Your task to perform on an android device: show emergency info Image 0: 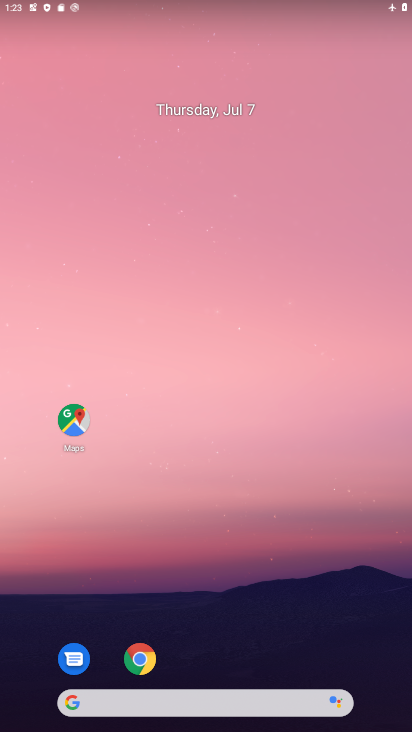
Step 0: press home button
Your task to perform on an android device: show emergency info Image 1: 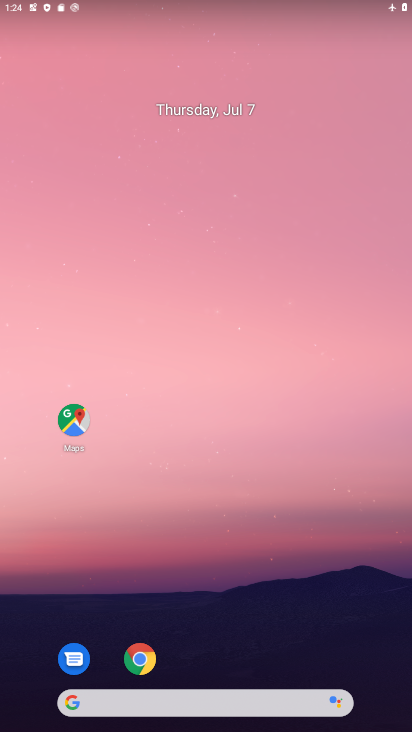
Step 1: drag from (214, 675) to (220, 66)
Your task to perform on an android device: show emergency info Image 2: 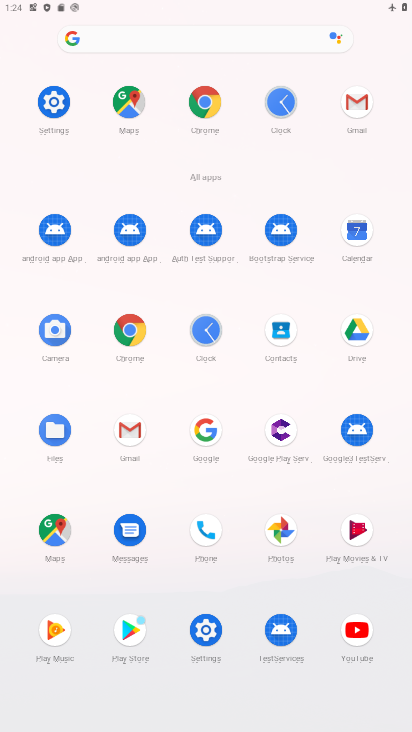
Step 2: click (50, 96)
Your task to perform on an android device: show emergency info Image 3: 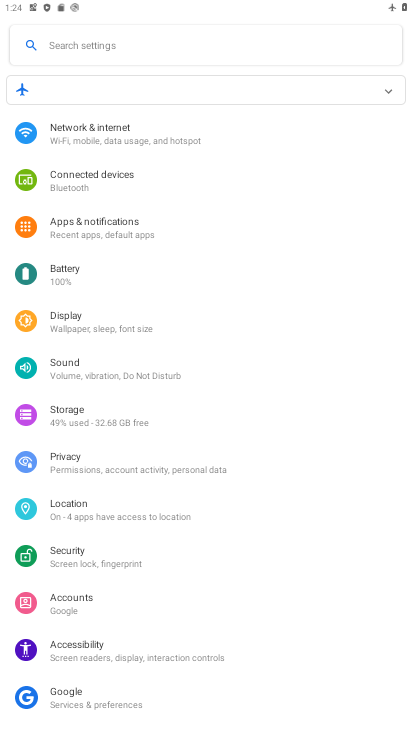
Step 3: drag from (181, 643) to (177, 176)
Your task to perform on an android device: show emergency info Image 4: 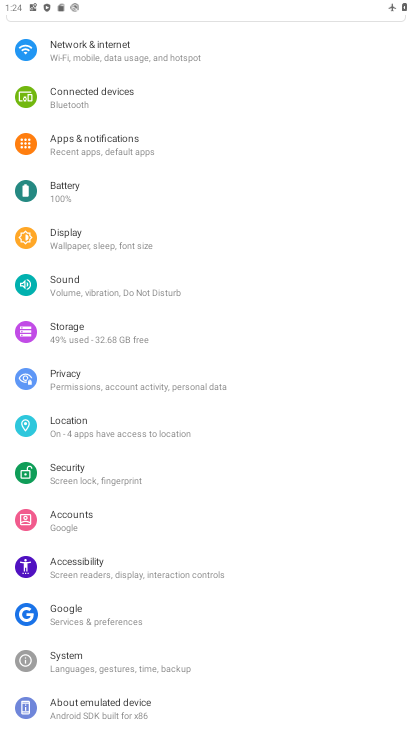
Step 4: click (162, 698)
Your task to perform on an android device: show emergency info Image 5: 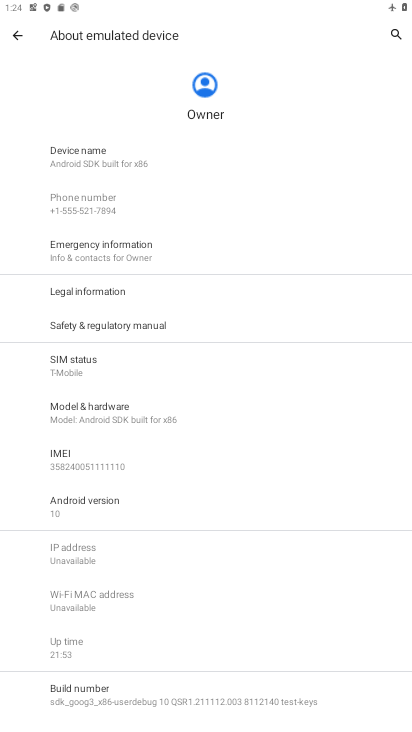
Step 5: click (161, 249)
Your task to perform on an android device: show emergency info Image 6: 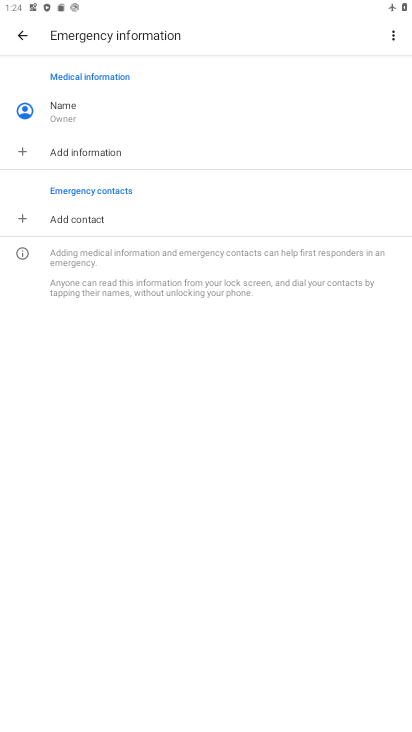
Step 6: task complete